Your task to perform on an android device: search for starred emails in the gmail app Image 0: 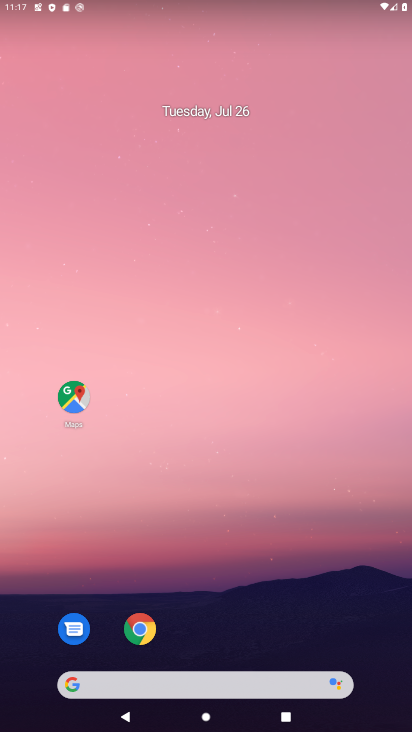
Step 0: drag from (279, 628) to (274, 242)
Your task to perform on an android device: search for starred emails in the gmail app Image 1: 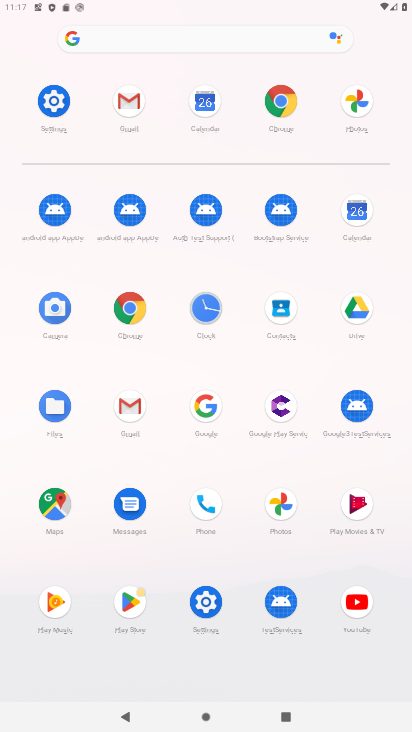
Step 1: click (133, 126)
Your task to perform on an android device: search for starred emails in the gmail app Image 2: 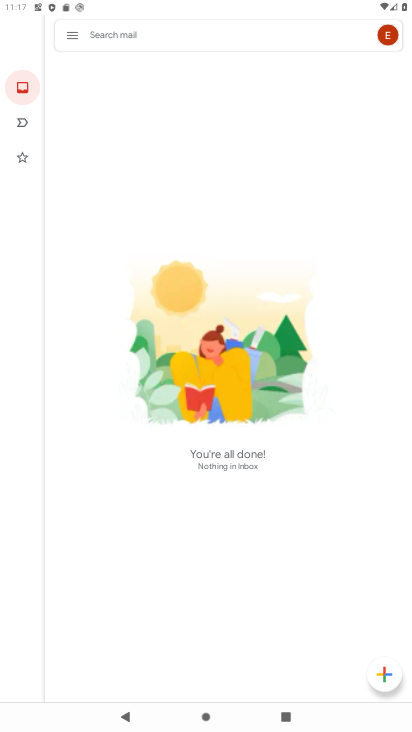
Step 2: click (69, 44)
Your task to perform on an android device: search for starred emails in the gmail app Image 3: 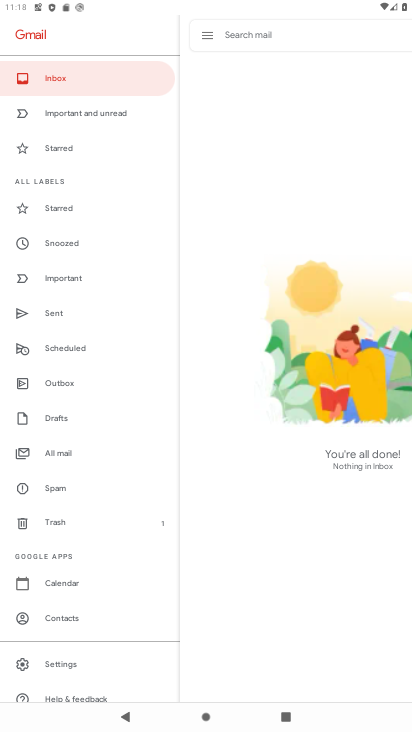
Step 3: click (54, 220)
Your task to perform on an android device: search for starred emails in the gmail app Image 4: 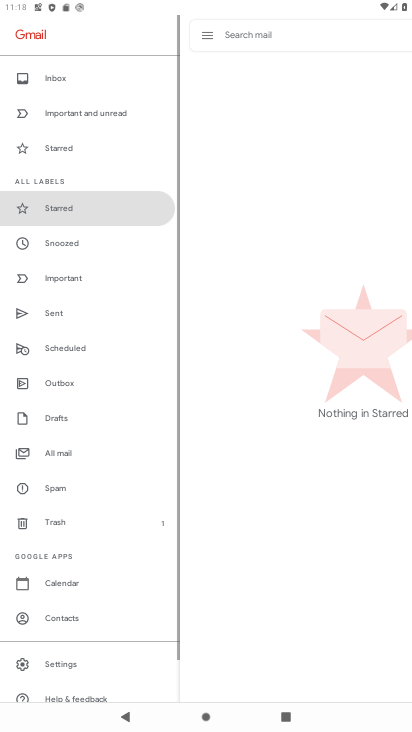
Step 4: task complete